Your task to perform on an android device: toggle pop-ups in chrome Image 0: 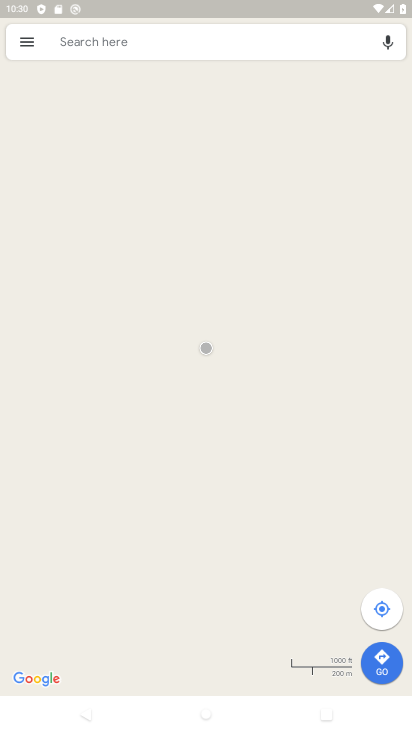
Step 0: press home button
Your task to perform on an android device: toggle pop-ups in chrome Image 1: 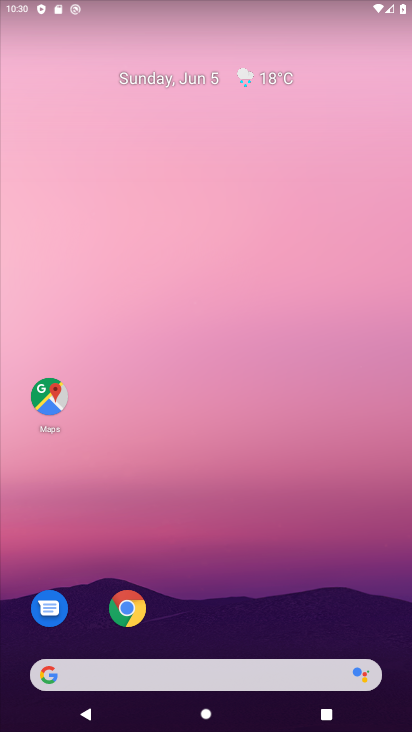
Step 1: click (133, 604)
Your task to perform on an android device: toggle pop-ups in chrome Image 2: 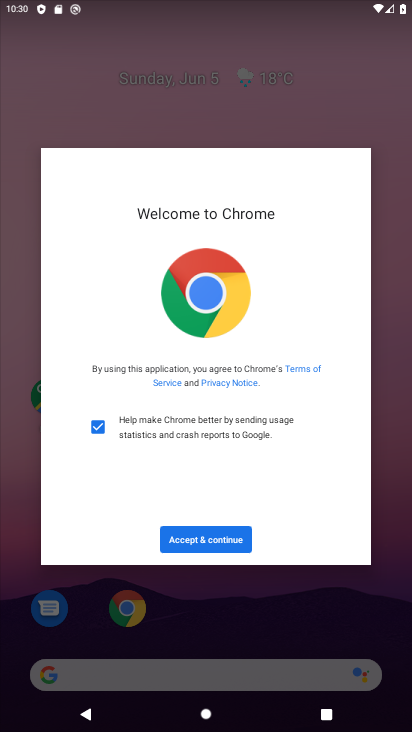
Step 2: click (222, 532)
Your task to perform on an android device: toggle pop-ups in chrome Image 3: 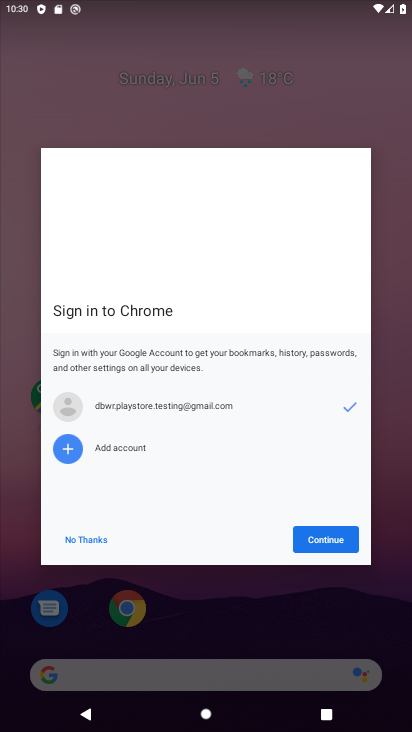
Step 3: click (308, 536)
Your task to perform on an android device: toggle pop-ups in chrome Image 4: 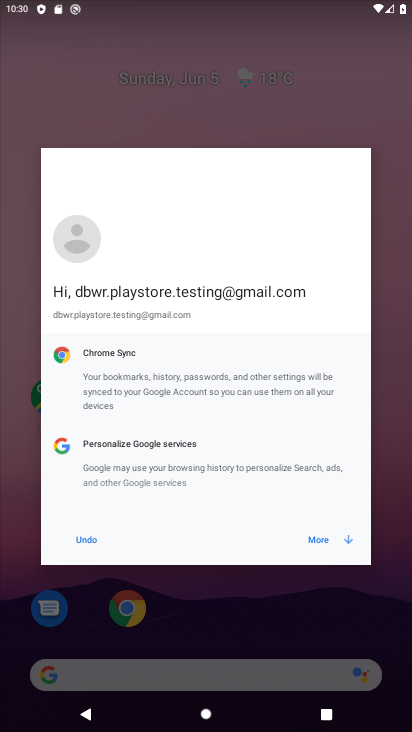
Step 4: click (308, 536)
Your task to perform on an android device: toggle pop-ups in chrome Image 5: 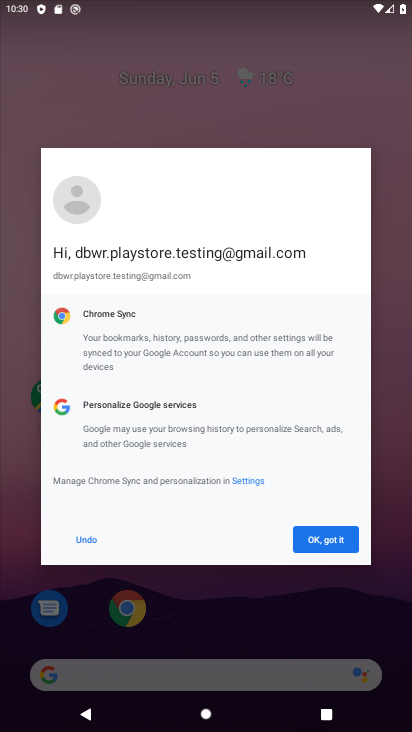
Step 5: click (313, 530)
Your task to perform on an android device: toggle pop-ups in chrome Image 6: 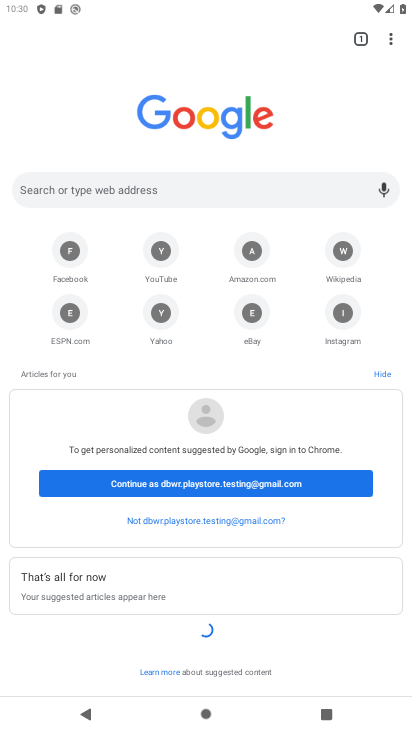
Step 6: click (387, 43)
Your task to perform on an android device: toggle pop-ups in chrome Image 7: 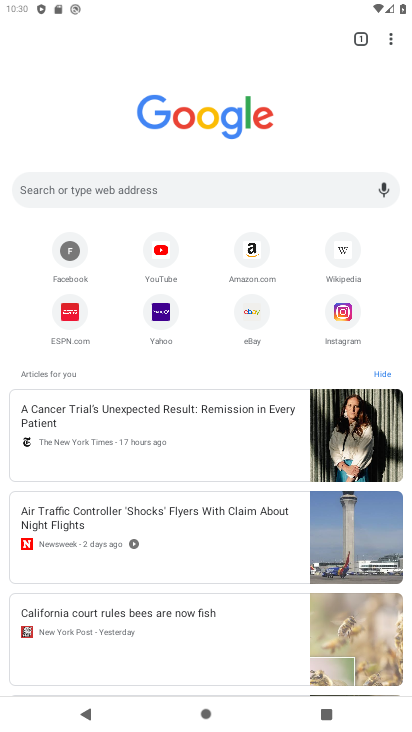
Step 7: click (392, 27)
Your task to perform on an android device: toggle pop-ups in chrome Image 8: 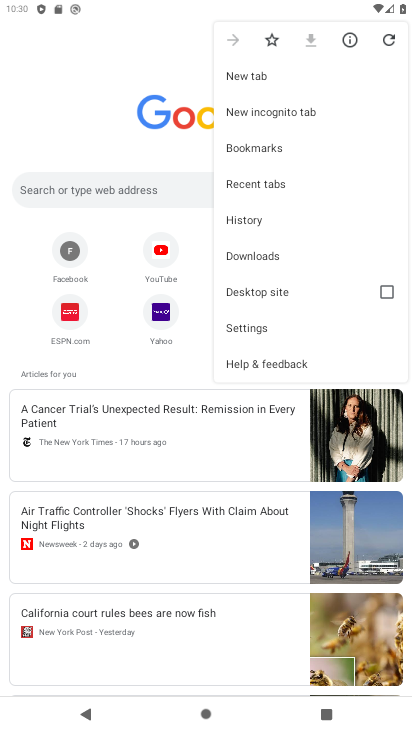
Step 8: click (264, 324)
Your task to perform on an android device: toggle pop-ups in chrome Image 9: 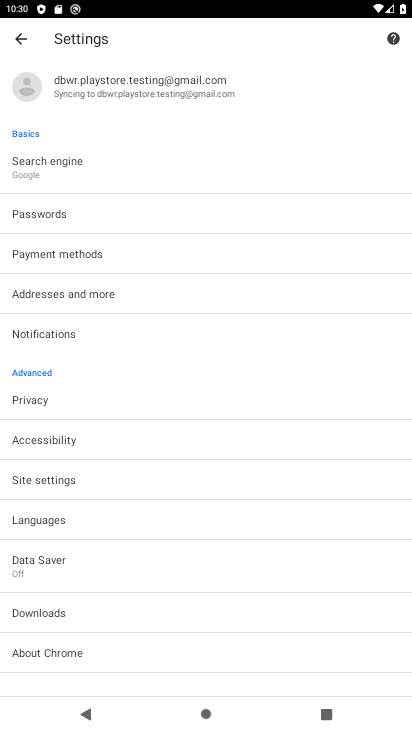
Step 9: click (37, 479)
Your task to perform on an android device: toggle pop-ups in chrome Image 10: 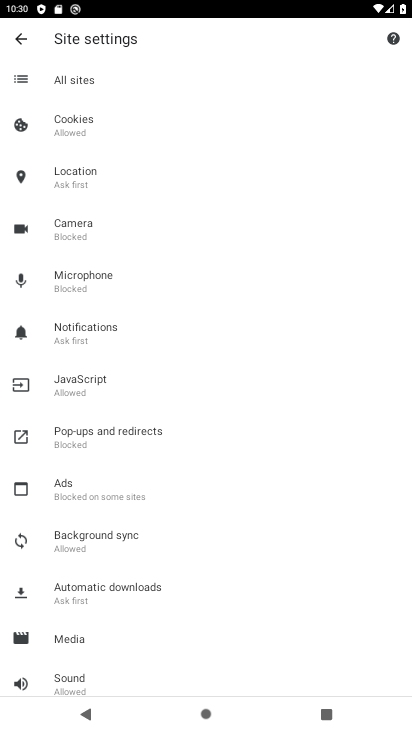
Step 10: click (101, 444)
Your task to perform on an android device: toggle pop-ups in chrome Image 11: 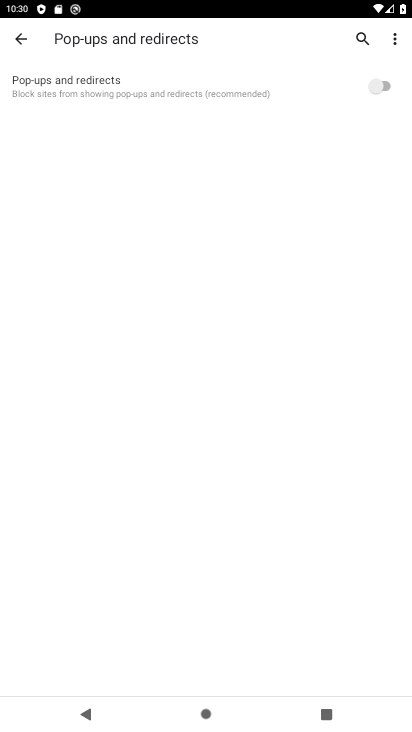
Step 11: click (372, 83)
Your task to perform on an android device: toggle pop-ups in chrome Image 12: 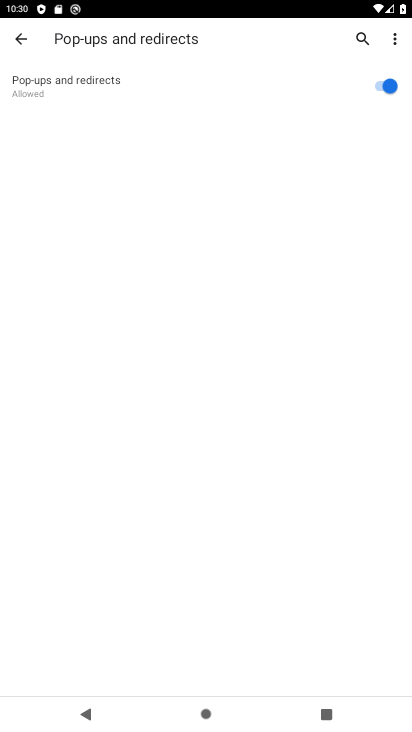
Step 12: task complete